Your task to perform on an android device: toggle pop-ups in chrome Image 0: 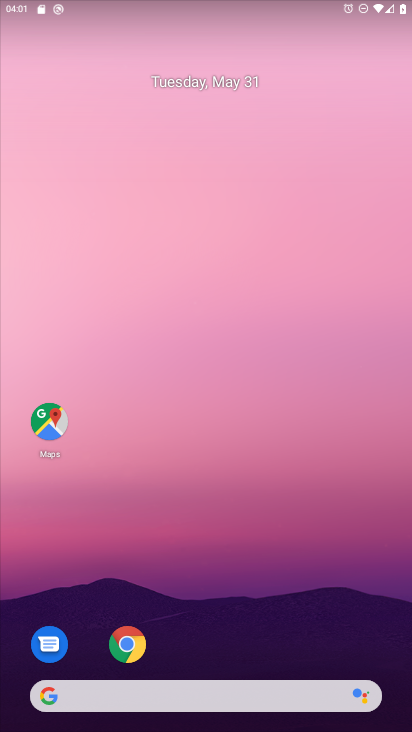
Step 0: click (125, 645)
Your task to perform on an android device: toggle pop-ups in chrome Image 1: 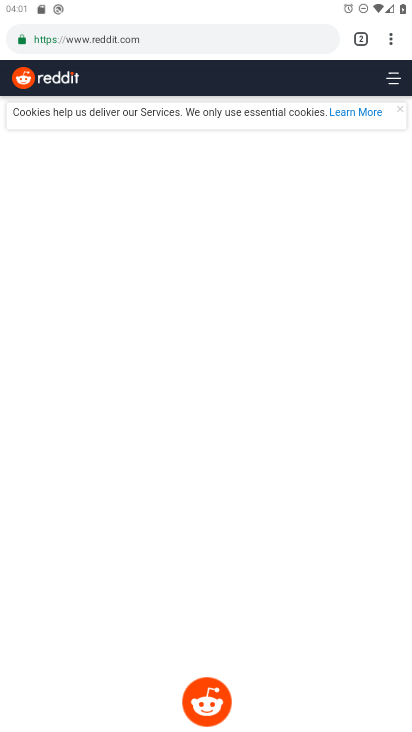
Step 1: drag from (396, 31) to (249, 481)
Your task to perform on an android device: toggle pop-ups in chrome Image 2: 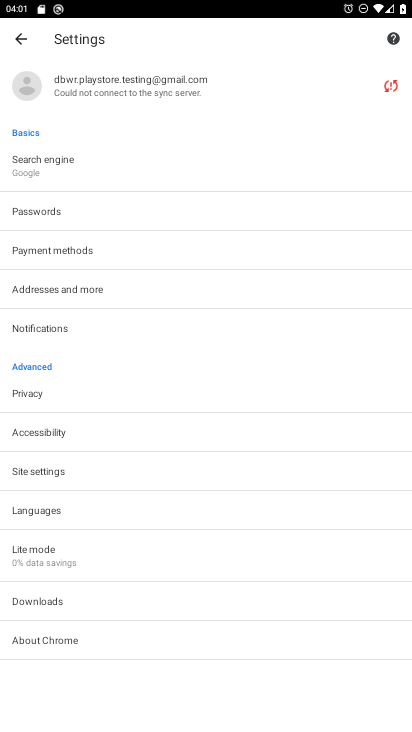
Step 2: click (62, 465)
Your task to perform on an android device: toggle pop-ups in chrome Image 3: 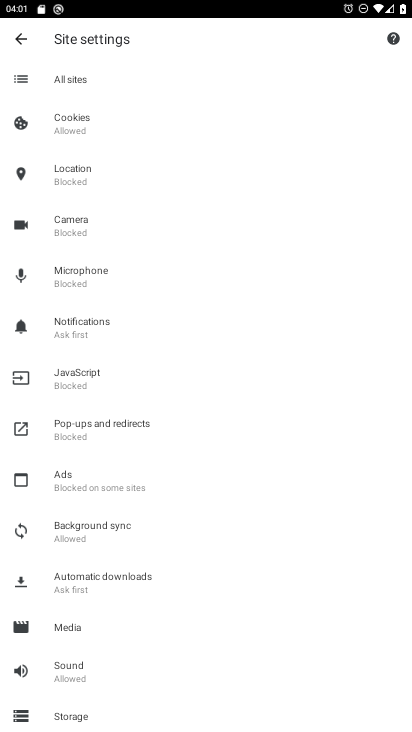
Step 3: click (97, 439)
Your task to perform on an android device: toggle pop-ups in chrome Image 4: 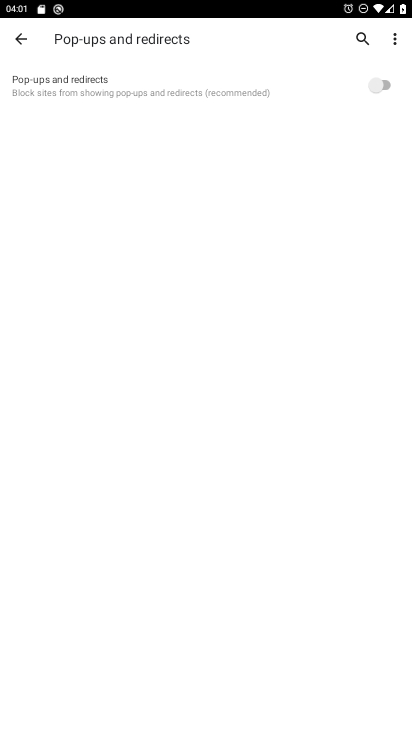
Step 4: click (366, 87)
Your task to perform on an android device: toggle pop-ups in chrome Image 5: 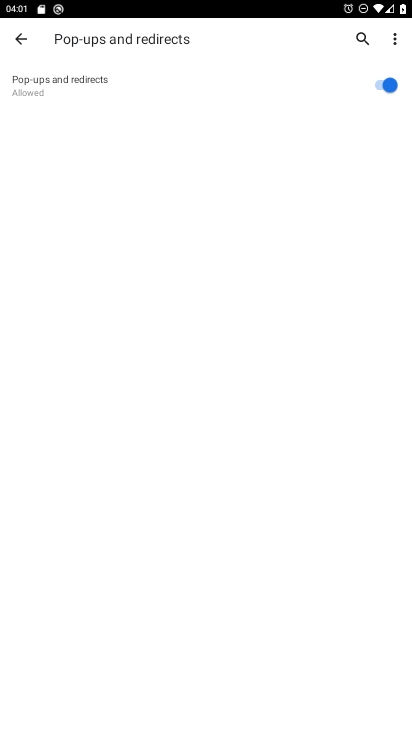
Step 5: task complete